Your task to perform on an android device: Search for Italian restaurants on Maps Image 0: 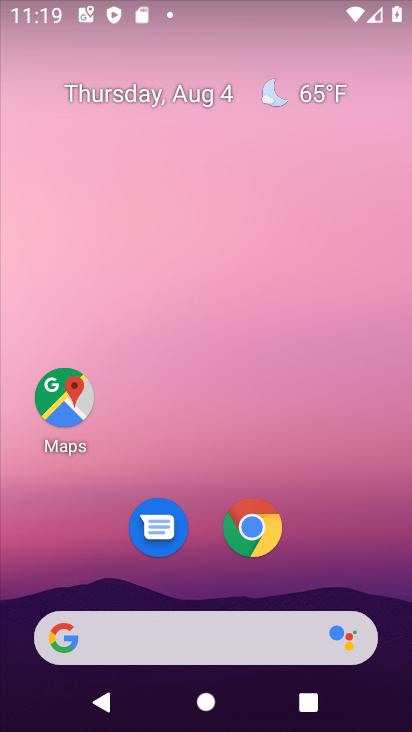
Step 0: click (47, 391)
Your task to perform on an android device: Search for Italian restaurants on Maps Image 1: 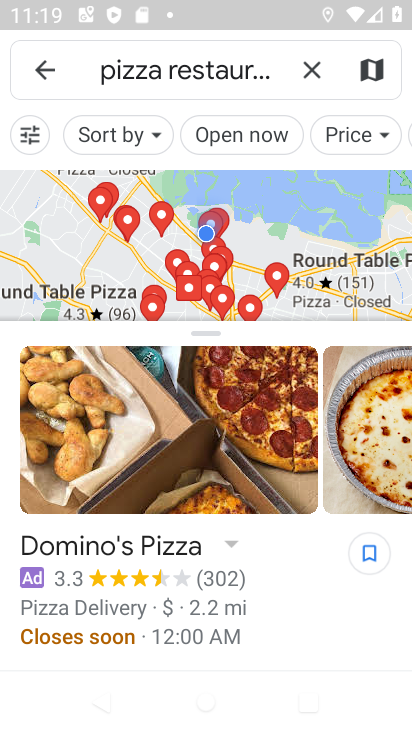
Step 1: click (306, 67)
Your task to perform on an android device: Search for Italian restaurants on Maps Image 2: 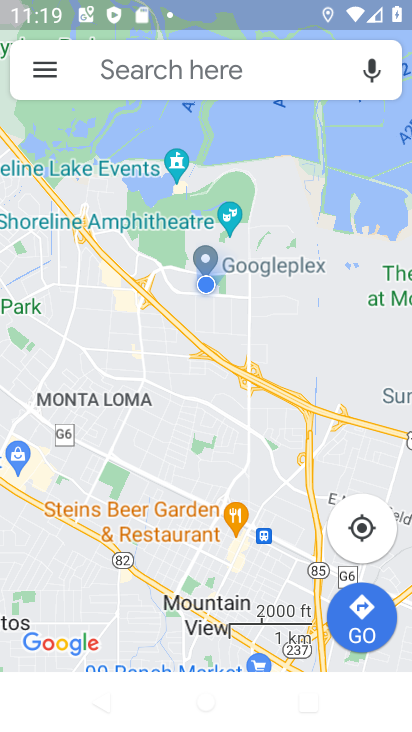
Step 2: click (221, 67)
Your task to perform on an android device: Search for Italian restaurants on Maps Image 3: 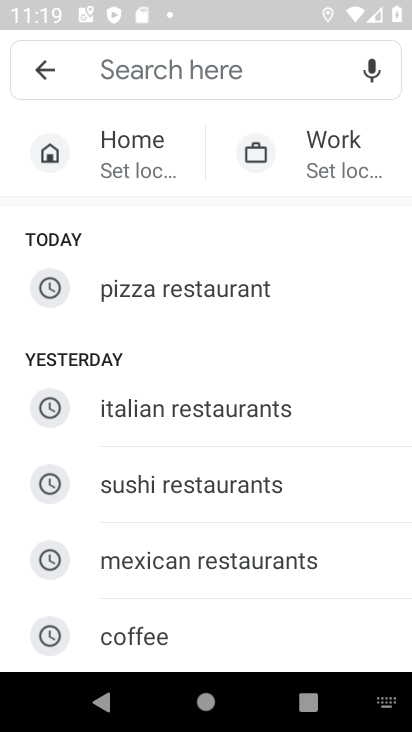
Step 3: click (201, 407)
Your task to perform on an android device: Search for Italian restaurants on Maps Image 4: 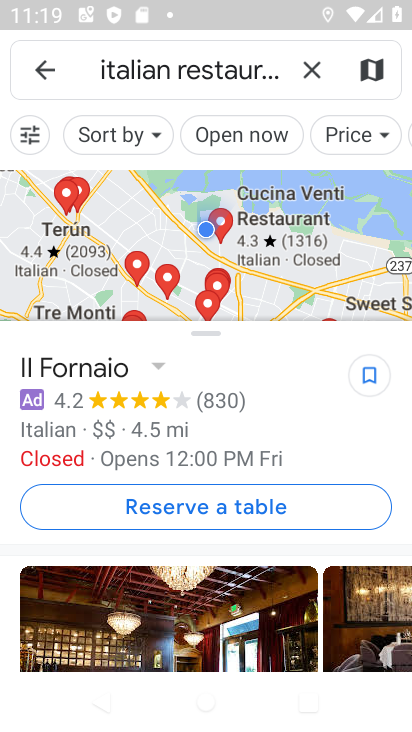
Step 4: task complete